Your task to perform on an android device: Open the map Image 0: 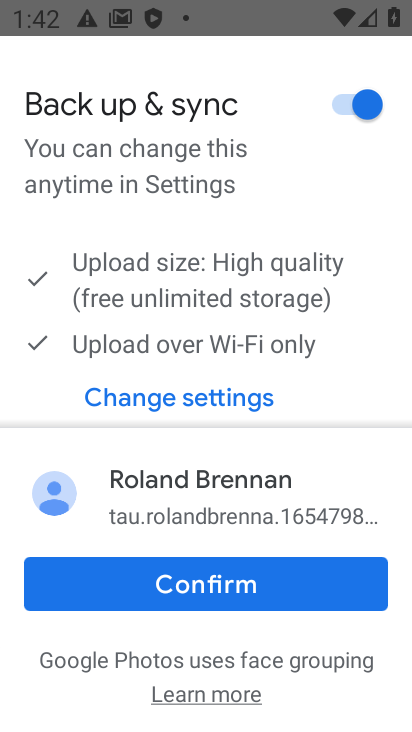
Step 0: press home button
Your task to perform on an android device: Open the map Image 1: 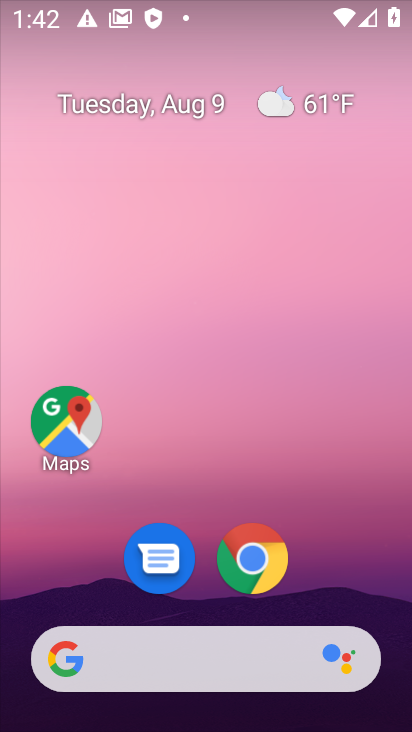
Step 1: click (69, 433)
Your task to perform on an android device: Open the map Image 2: 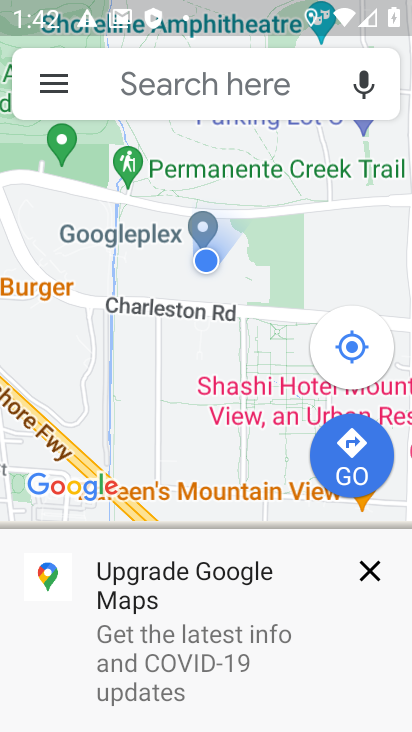
Step 2: task complete